Your task to perform on an android device: Open notification settings Image 0: 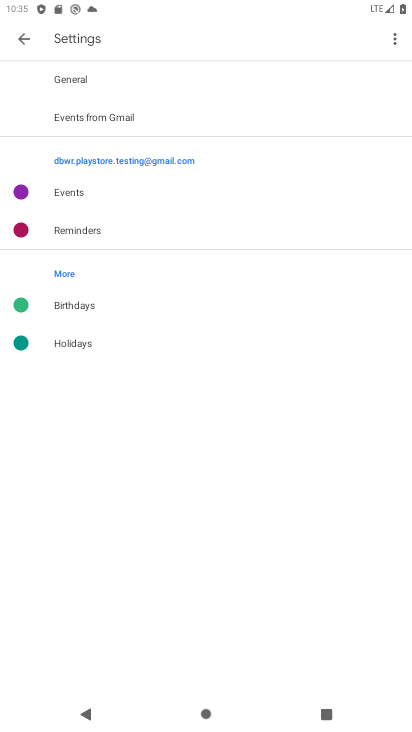
Step 0: press home button
Your task to perform on an android device: Open notification settings Image 1: 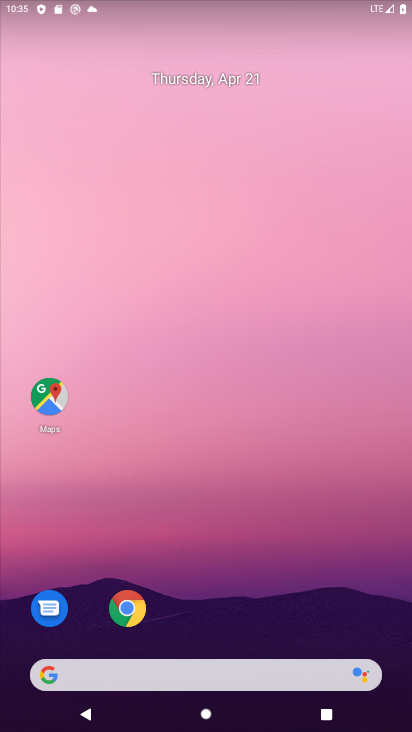
Step 1: drag from (206, 520) to (151, 196)
Your task to perform on an android device: Open notification settings Image 2: 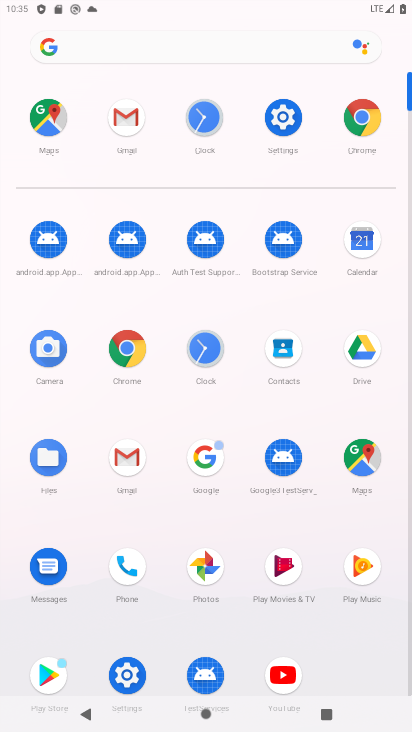
Step 2: click (289, 122)
Your task to perform on an android device: Open notification settings Image 3: 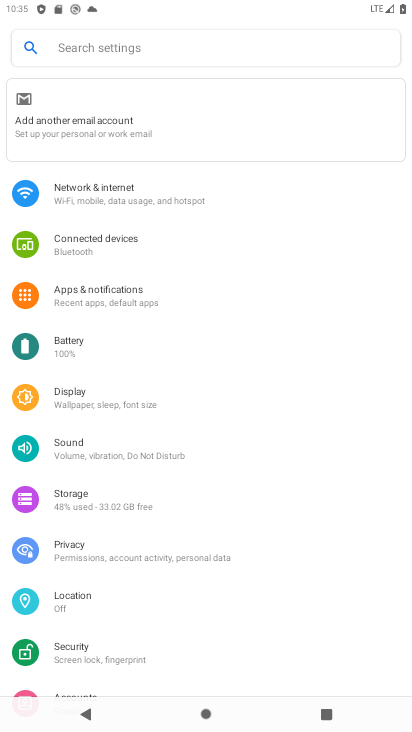
Step 3: click (99, 296)
Your task to perform on an android device: Open notification settings Image 4: 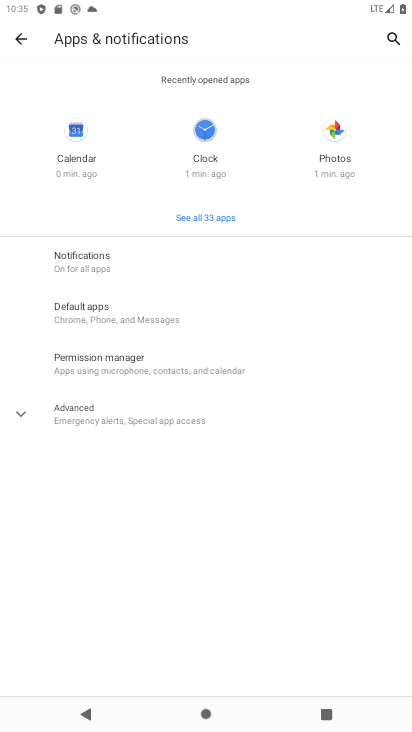
Step 4: click (93, 265)
Your task to perform on an android device: Open notification settings Image 5: 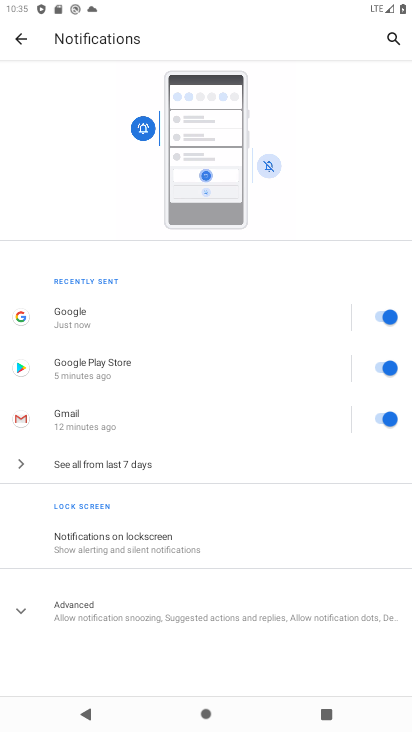
Step 5: click (103, 609)
Your task to perform on an android device: Open notification settings Image 6: 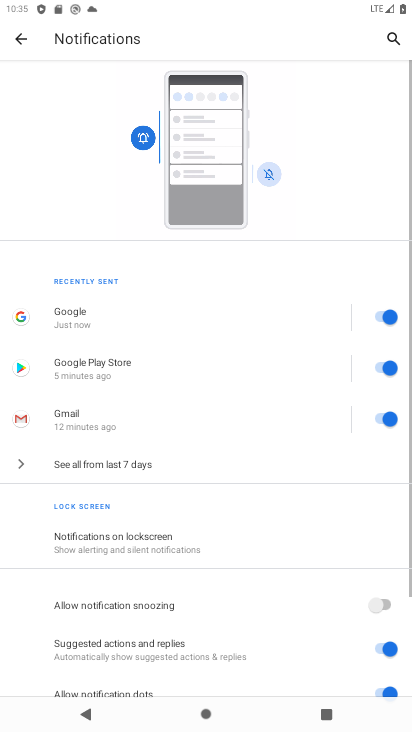
Step 6: task complete